Your task to perform on an android device: add a contact in the contacts app Image 0: 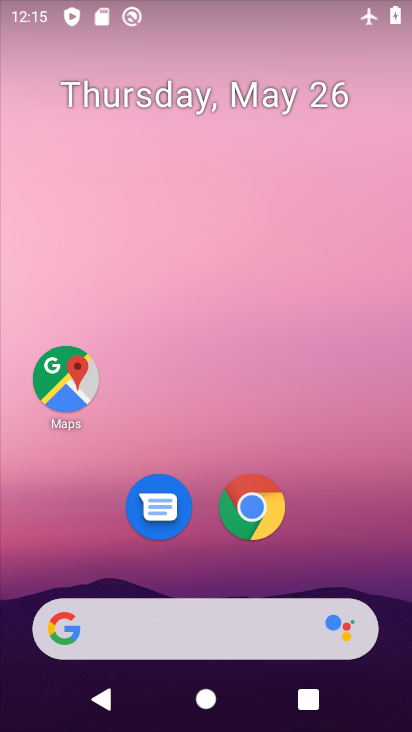
Step 0: drag from (191, 564) to (193, 225)
Your task to perform on an android device: add a contact in the contacts app Image 1: 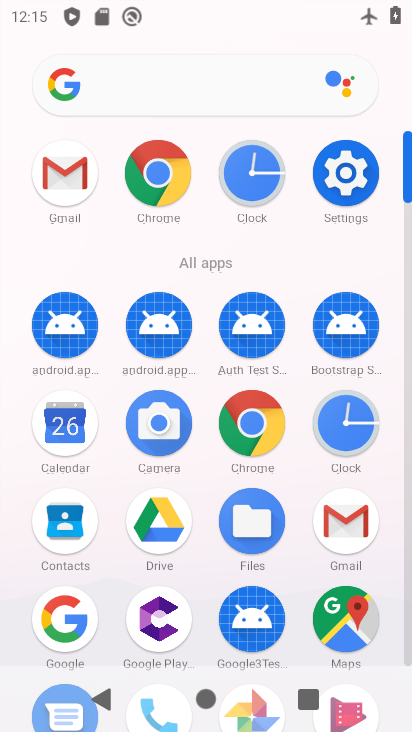
Step 1: click (72, 502)
Your task to perform on an android device: add a contact in the contacts app Image 2: 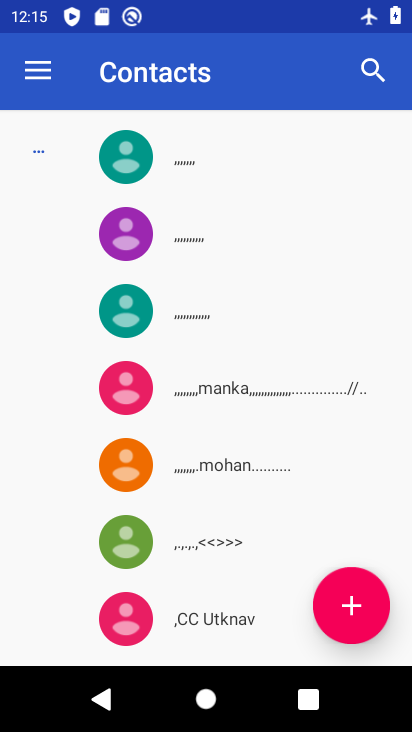
Step 2: click (339, 613)
Your task to perform on an android device: add a contact in the contacts app Image 3: 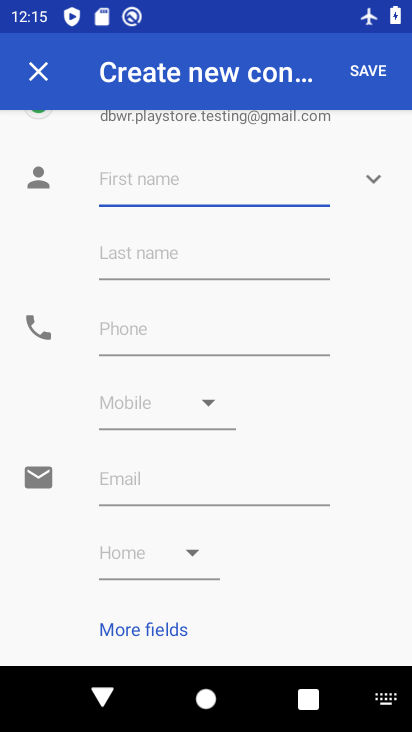
Step 3: type "fdhdfg"
Your task to perform on an android device: add a contact in the contacts app Image 4: 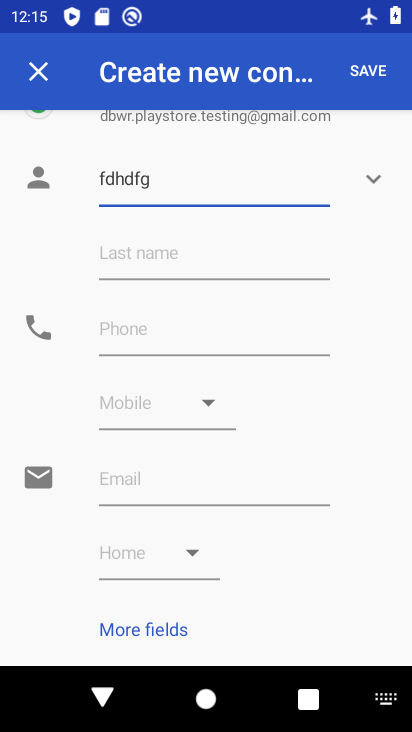
Step 4: click (135, 319)
Your task to perform on an android device: add a contact in the contacts app Image 5: 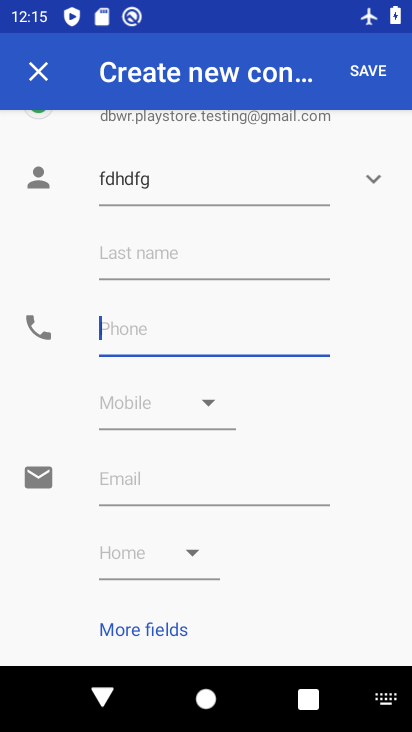
Step 5: type "96785685678"
Your task to perform on an android device: add a contact in the contacts app Image 6: 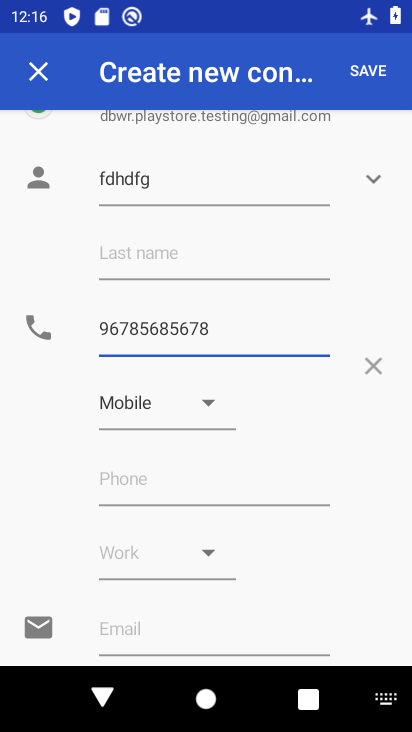
Step 6: click (368, 64)
Your task to perform on an android device: add a contact in the contacts app Image 7: 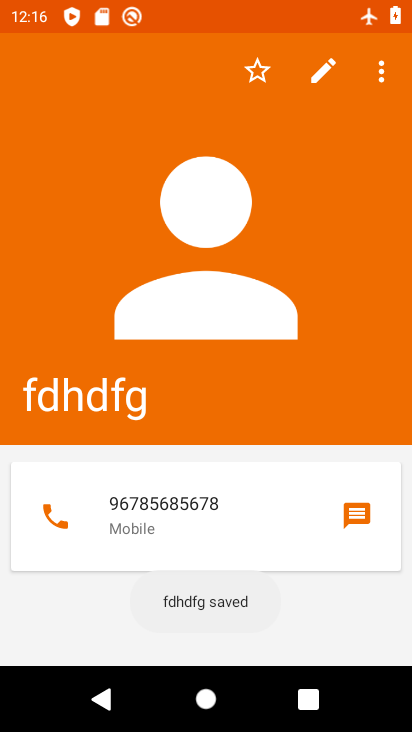
Step 7: task complete